Your task to perform on an android device: Open Google Maps Image 0: 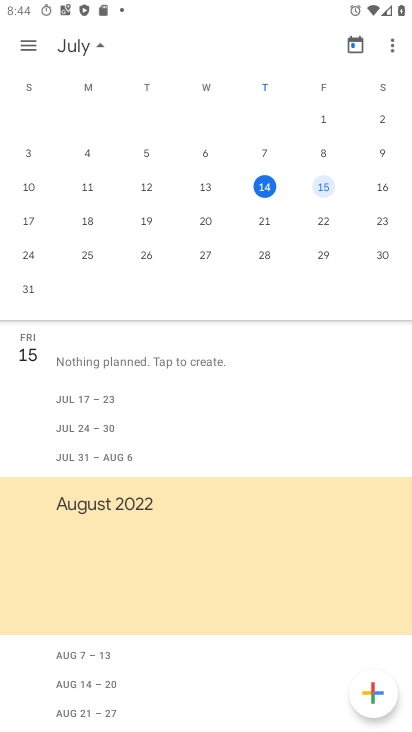
Step 0: press home button
Your task to perform on an android device: Open Google Maps Image 1: 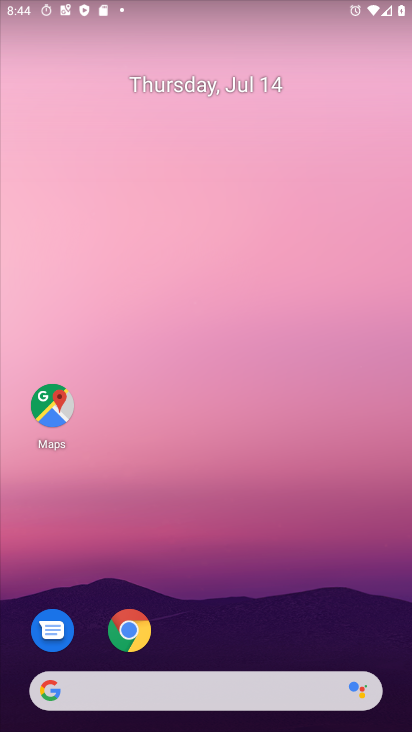
Step 1: drag from (183, 716) to (189, 99)
Your task to perform on an android device: Open Google Maps Image 2: 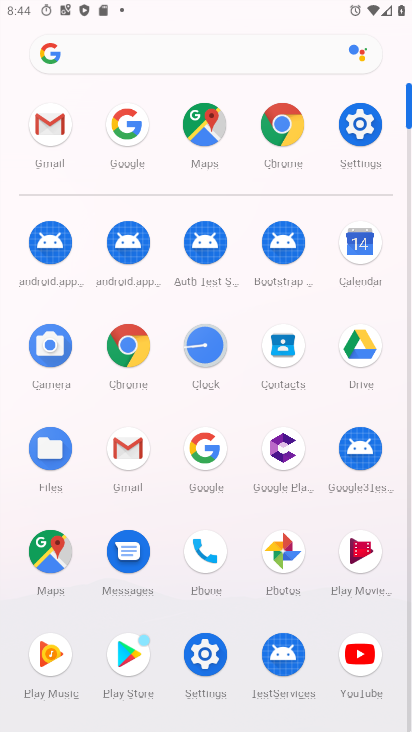
Step 2: click (47, 555)
Your task to perform on an android device: Open Google Maps Image 3: 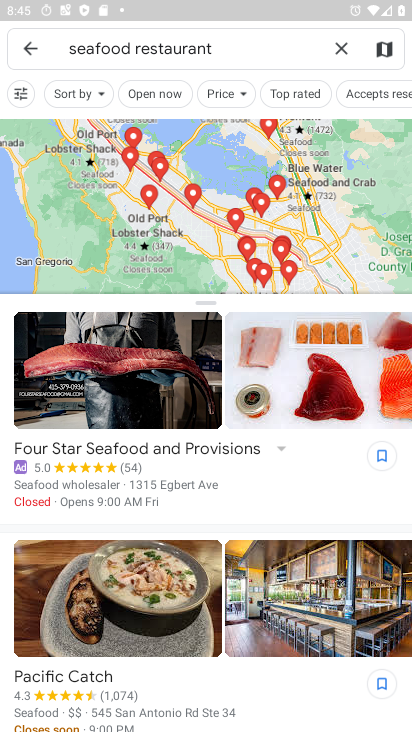
Step 3: task complete